Your task to perform on an android device: open app "Mercado Libre" (install if not already installed) and enter user name: "tolerating@yahoo.com" and password: "Kepler" Image 0: 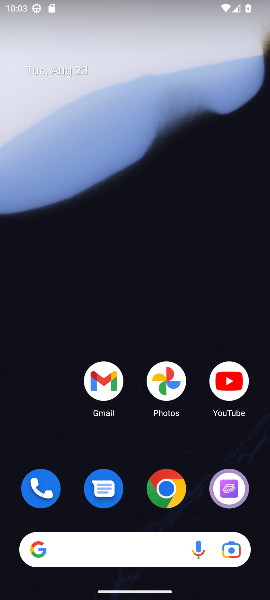
Step 0: click (123, 174)
Your task to perform on an android device: open app "Mercado Libre" (install if not already installed) and enter user name: "tolerating@yahoo.com" and password: "Kepler" Image 1: 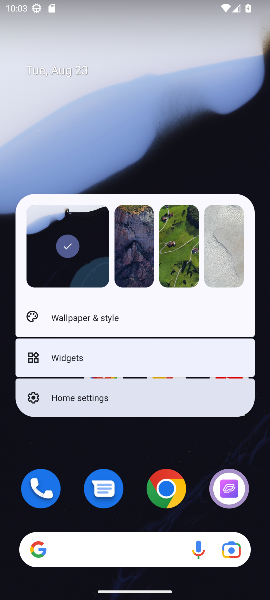
Step 1: click (165, 148)
Your task to perform on an android device: open app "Mercado Libre" (install if not already installed) and enter user name: "tolerating@yahoo.com" and password: "Kepler" Image 2: 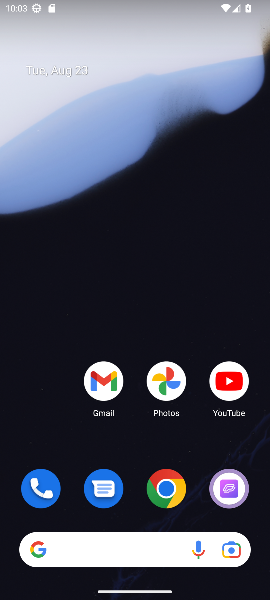
Step 2: drag from (138, 519) to (142, 72)
Your task to perform on an android device: open app "Mercado Libre" (install if not already installed) and enter user name: "tolerating@yahoo.com" and password: "Kepler" Image 3: 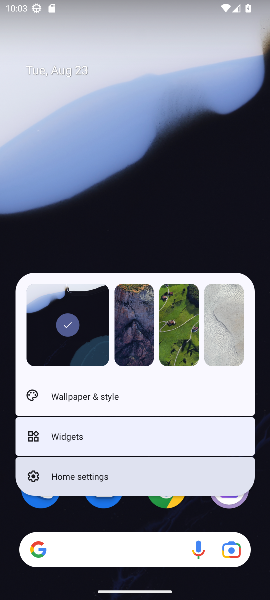
Step 3: click (115, 529)
Your task to perform on an android device: open app "Mercado Libre" (install if not already installed) and enter user name: "tolerating@yahoo.com" and password: "Kepler" Image 4: 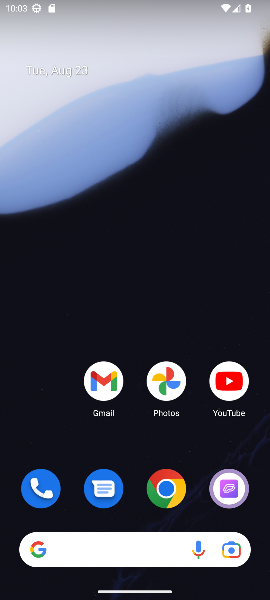
Step 4: drag from (129, 520) to (130, 272)
Your task to perform on an android device: open app "Mercado Libre" (install if not already installed) and enter user name: "tolerating@yahoo.com" and password: "Kepler" Image 5: 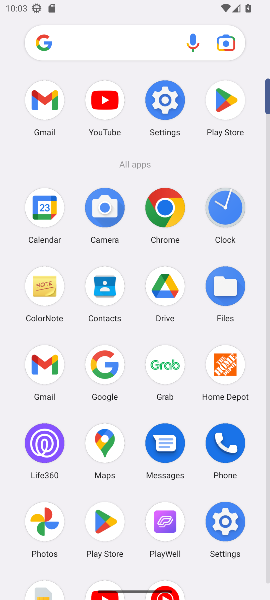
Step 5: click (101, 102)
Your task to perform on an android device: open app "Mercado Libre" (install if not already installed) and enter user name: "tolerating@yahoo.com" and password: "Kepler" Image 6: 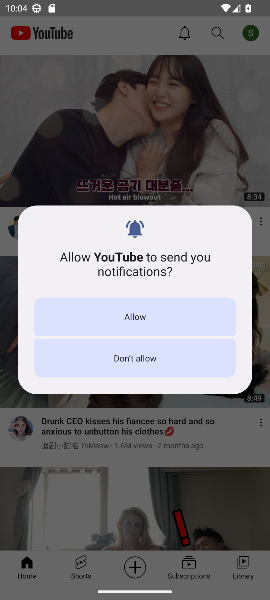
Step 6: drag from (119, 465) to (189, 570)
Your task to perform on an android device: open app "Mercado Libre" (install if not already installed) and enter user name: "tolerating@yahoo.com" and password: "Kepler" Image 7: 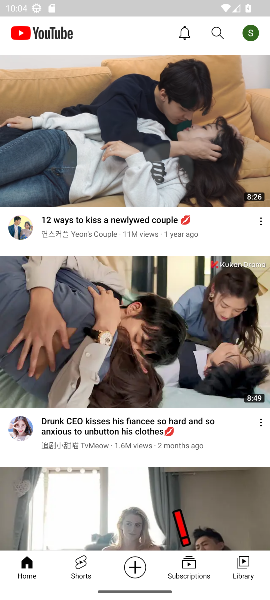
Step 7: press home button
Your task to perform on an android device: open app "Mercado Libre" (install if not already installed) and enter user name: "tolerating@yahoo.com" and password: "Kepler" Image 8: 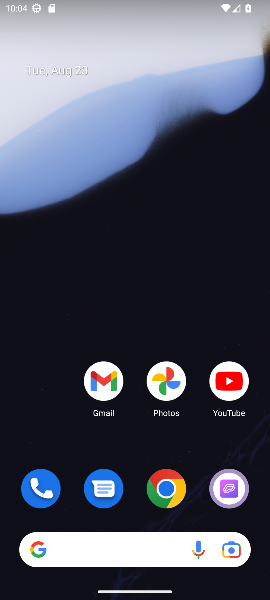
Step 8: drag from (132, 408) to (132, 86)
Your task to perform on an android device: open app "Mercado Libre" (install if not already installed) and enter user name: "tolerating@yahoo.com" and password: "Kepler" Image 9: 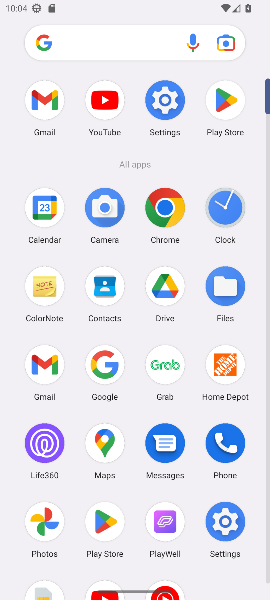
Step 9: drag from (137, 513) to (263, 186)
Your task to perform on an android device: open app "Mercado Libre" (install if not already installed) and enter user name: "tolerating@yahoo.com" and password: "Kepler" Image 10: 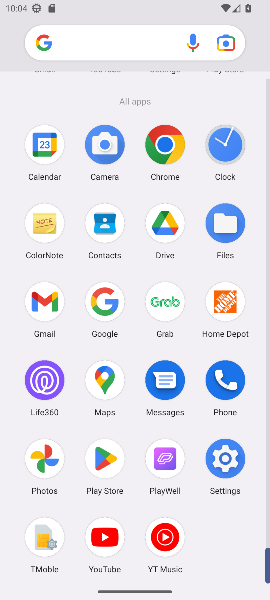
Step 10: click (234, 102)
Your task to perform on an android device: open app "Mercado Libre" (install if not already installed) and enter user name: "tolerating@yahoo.com" and password: "Kepler" Image 11: 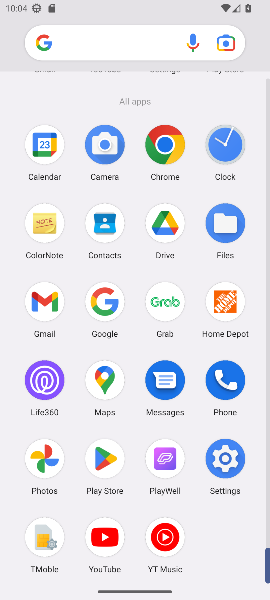
Step 11: drag from (124, 214) to (142, 559)
Your task to perform on an android device: open app "Mercado Libre" (install if not already installed) and enter user name: "tolerating@yahoo.com" and password: "Kepler" Image 12: 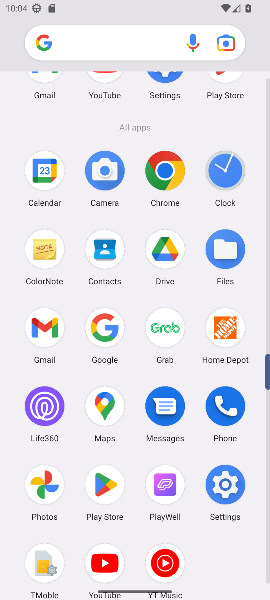
Step 12: drag from (225, 119) to (208, 269)
Your task to perform on an android device: open app "Mercado Libre" (install if not already installed) and enter user name: "tolerating@yahoo.com" and password: "Kepler" Image 13: 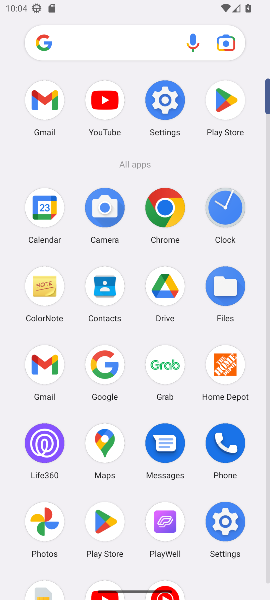
Step 13: click (232, 101)
Your task to perform on an android device: open app "Mercado Libre" (install if not already installed) and enter user name: "tolerating@yahoo.com" and password: "Kepler" Image 14: 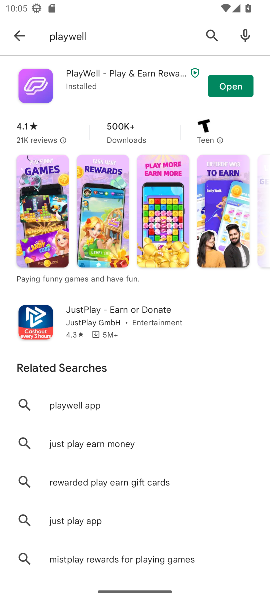
Step 14: click (238, 83)
Your task to perform on an android device: open app "Mercado Libre" (install if not already installed) and enter user name: "tolerating@yahoo.com" and password: "Kepler" Image 15: 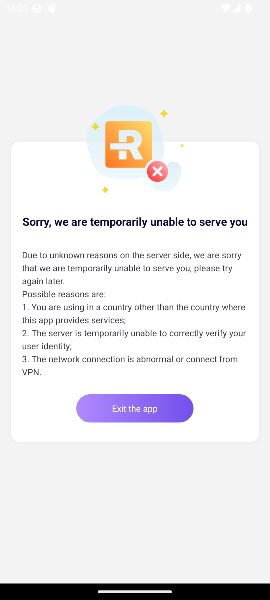
Step 15: press back button
Your task to perform on an android device: open app "Mercado Libre" (install if not already installed) and enter user name: "tolerating@yahoo.com" and password: "Kepler" Image 16: 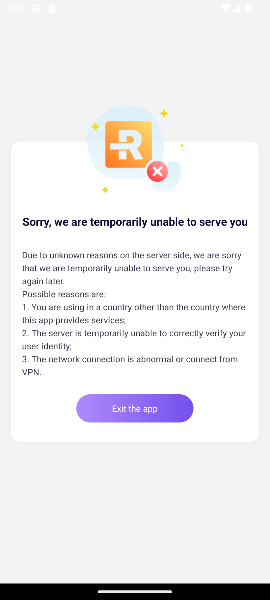
Step 16: press home button
Your task to perform on an android device: open app "Mercado Libre" (install if not already installed) and enter user name: "tolerating@yahoo.com" and password: "Kepler" Image 17: 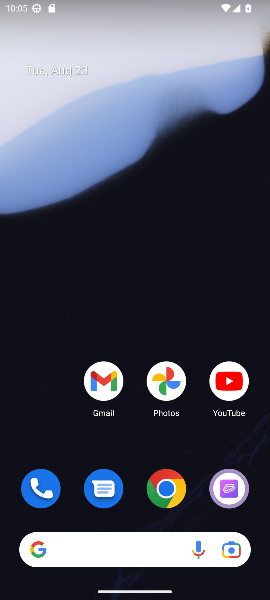
Step 17: drag from (125, 466) to (113, 189)
Your task to perform on an android device: open app "Mercado Libre" (install if not already installed) and enter user name: "tolerating@yahoo.com" and password: "Kepler" Image 18: 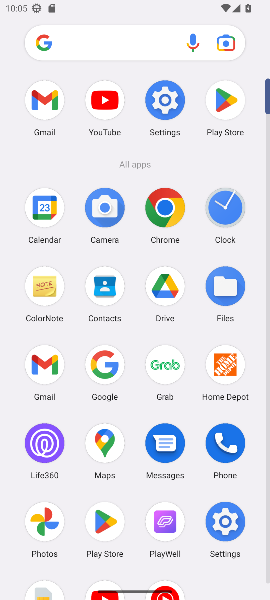
Step 18: click (221, 97)
Your task to perform on an android device: open app "Mercado Libre" (install if not already installed) and enter user name: "tolerating@yahoo.com" and password: "Kepler" Image 19: 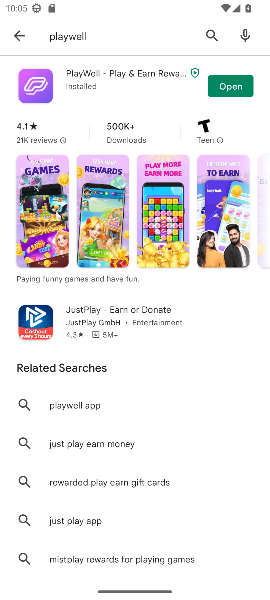
Step 19: click (15, 31)
Your task to perform on an android device: open app "Mercado Libre" (install if not already installed) and enter user name: "tolerating@yahoo.com" and password: "Kepler" Image 20: 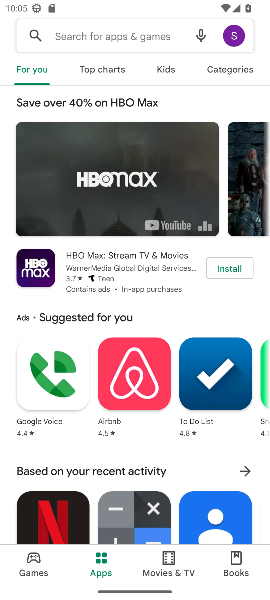
Step 20: click (100, 44)
Your task to perform on an android device: open app "Mercado Libre" (install if not already installed) and enter user name: "tolerating@yahoo.com" and password: "Kepler" Image 21: 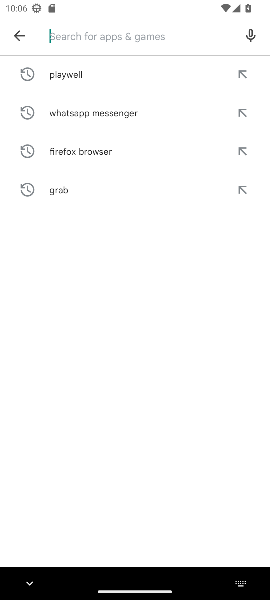
Step 21: type "Mercado Libre"
Your task to perform on an android device: open app "Mercado Libre" (install if not already installed) and enter user name: "tolerating@yahoo.com" and password: "Kepler" Image 22: 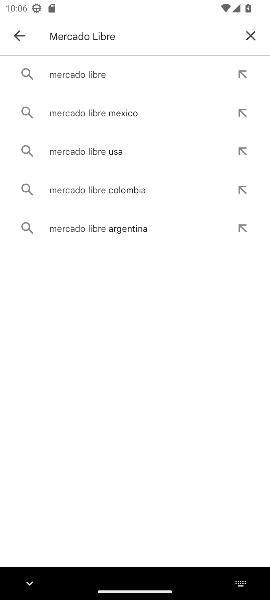
Step 22: click (79, 70)
Your task to perform on an android device: open app "Mercado Libre" (install if not already installed) and enter user name: "tolerating@yahoo.com" and password: "Kepler" Image 23: 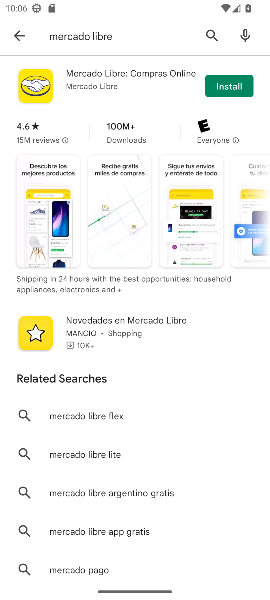
Step 23: click (226, 84)
Your task to perform on an android device: open app "Mercado Libre" (install if not already installed) and enter user name: "tolerating@yahoo.com" and password: "Kepler" Image 24: 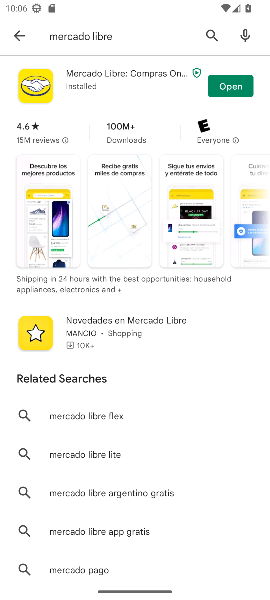
Step 24: click (232, 82)
Your task to perform on an android device: open app "Mercado Libre" (install if not already installed) and enter user name: "tolerating@yahoo.com" and password: "Kepler" Image 25: 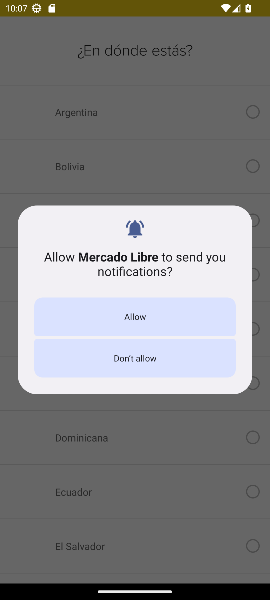
Step 25: click (137, 310)
Your task to perform on an android device: open app "Mercado Libre" (install if not already installed) and enter user name: "tolerating@yahoo.com" and password: "Kepler" Image 26: 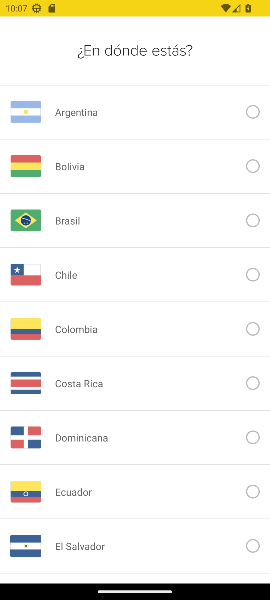
Step 26: task complete